Your task to perform on an android device: Turn on the flashlight Image 0: 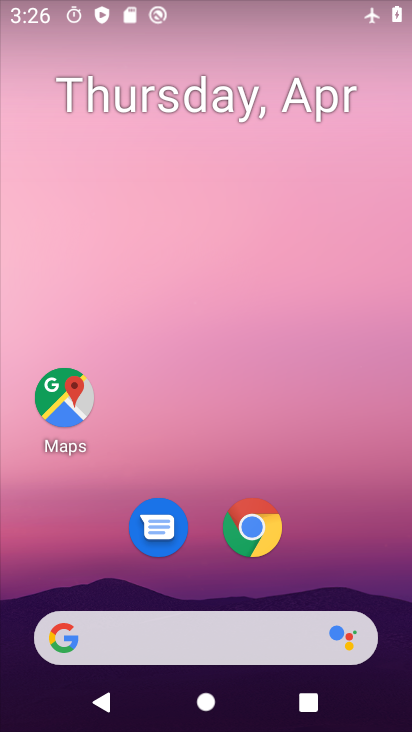
Step 0: drag from (206, 7) to (263, 441)
Your task to perform on an android device: Turn on the flashlight Image 1: 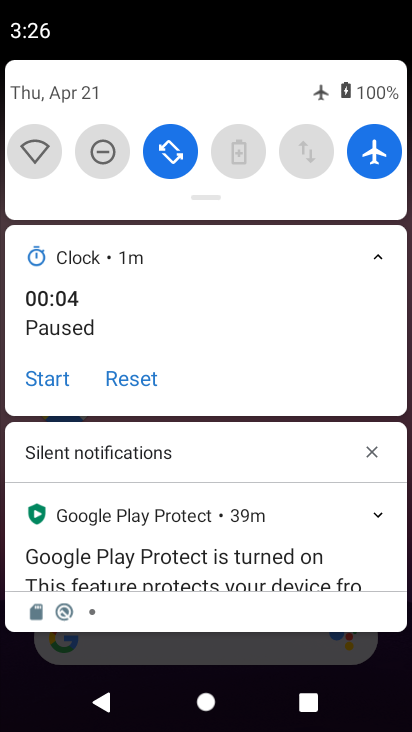
Step 1: task complete